Your task to perform on an android device: see sites visited before in the chrome app Image 0: 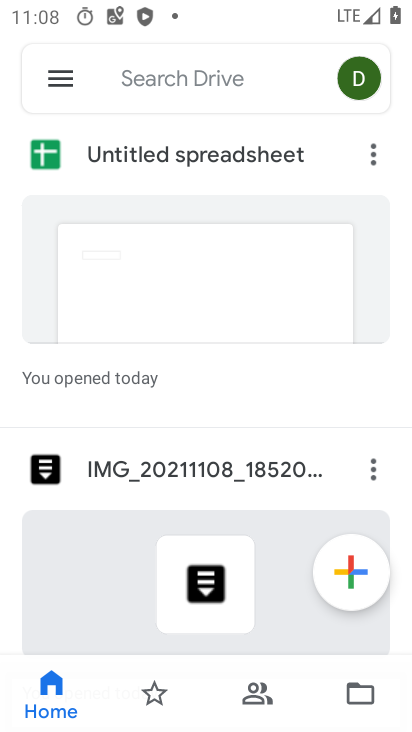
Step 0: press home button
Your task to perform on an android device: see sites visited before in the chrome app Image 1: 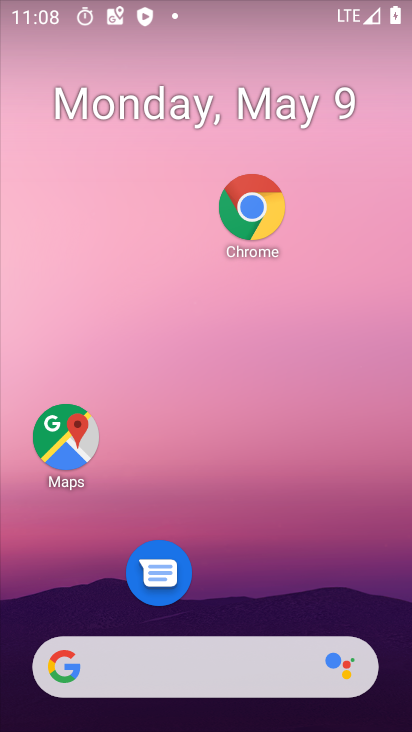
Step 1: drag from (263, 647) to (266, 145)
Your task to perform on an android device: see sites visited before in the chrome app Image 2: 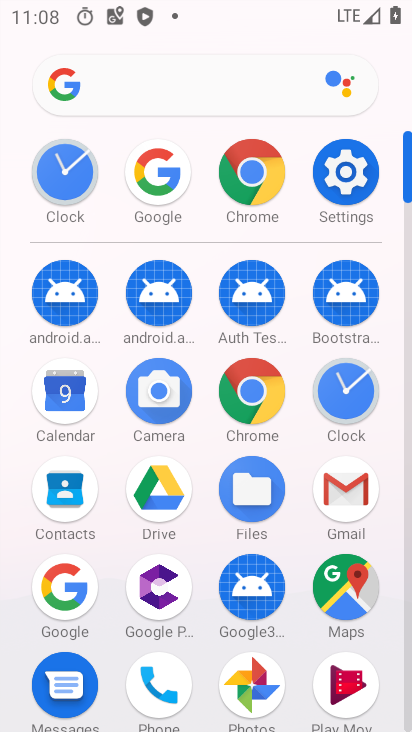
Step 2: click (247, 200)
Your task to perform on an android device: see sites visited before in the chrome app Image 3: 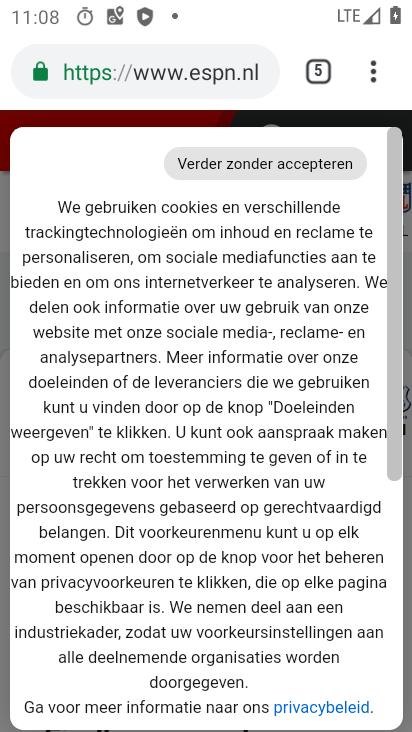
Step 3: click (374, 75)
Your task to perform on an android device: see sites visited before in the chrome app Image 4: 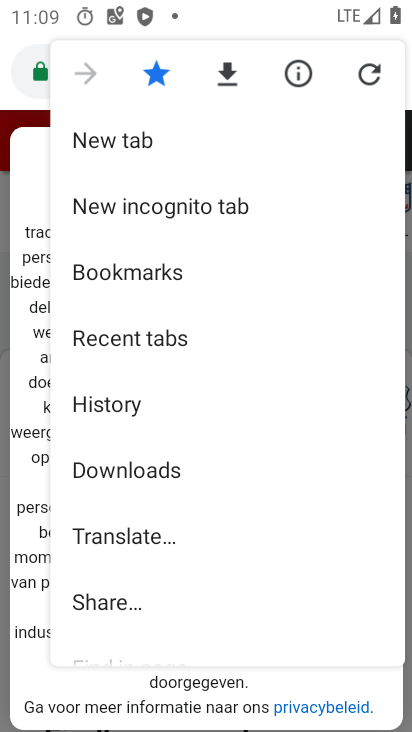
Step 4: click (230, 410)
Your task to perform on an android device: see sites visited before in the chrome app Image 5: 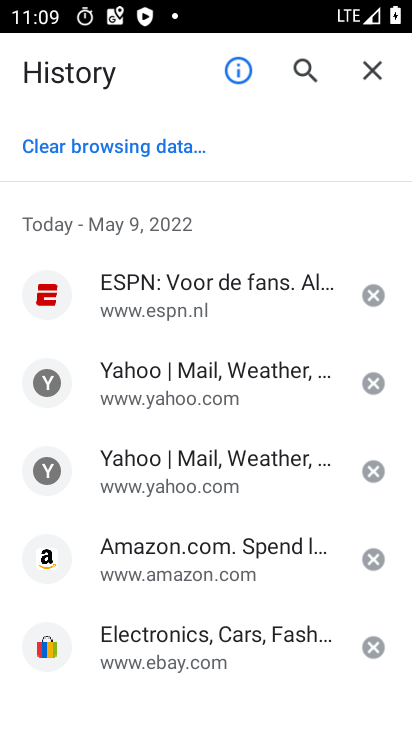
Step 5: click (230, 410)
Your task to perform on an android device: see sites visited before in the chrome app Image 6: 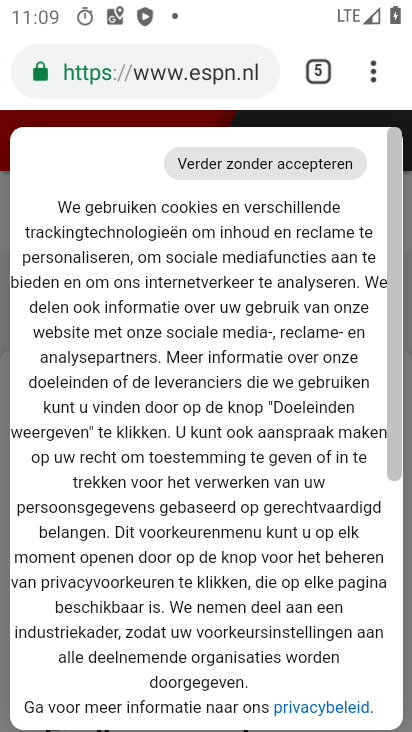
Step 6: task complete